Your task to perform on an android device: Open ESPN.com Image 0: 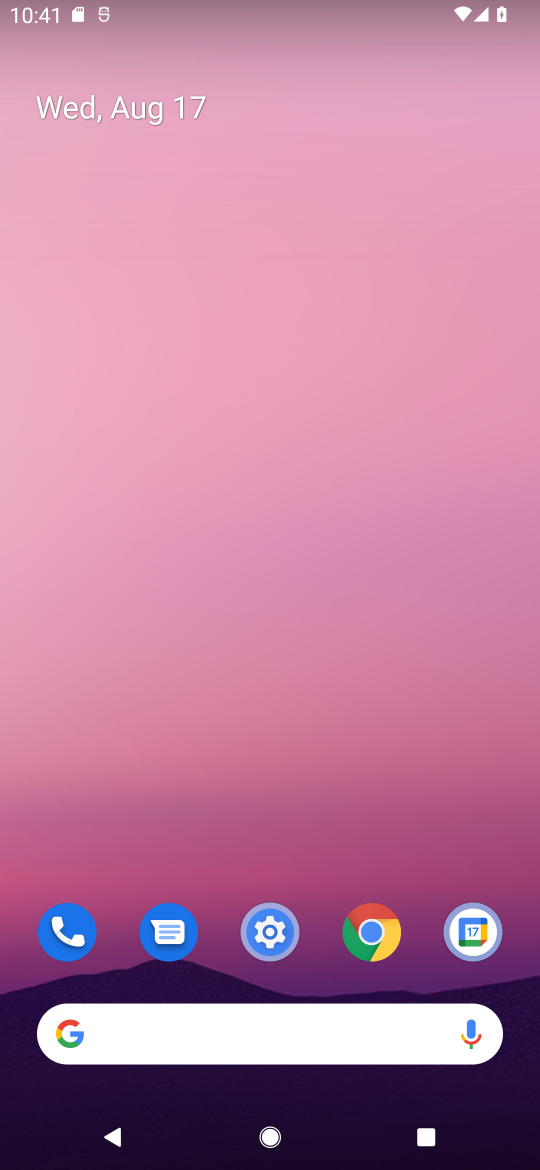
Step 0: click (366, 933)
Your task to perform on an android device: Open ESPN.com Image 1: 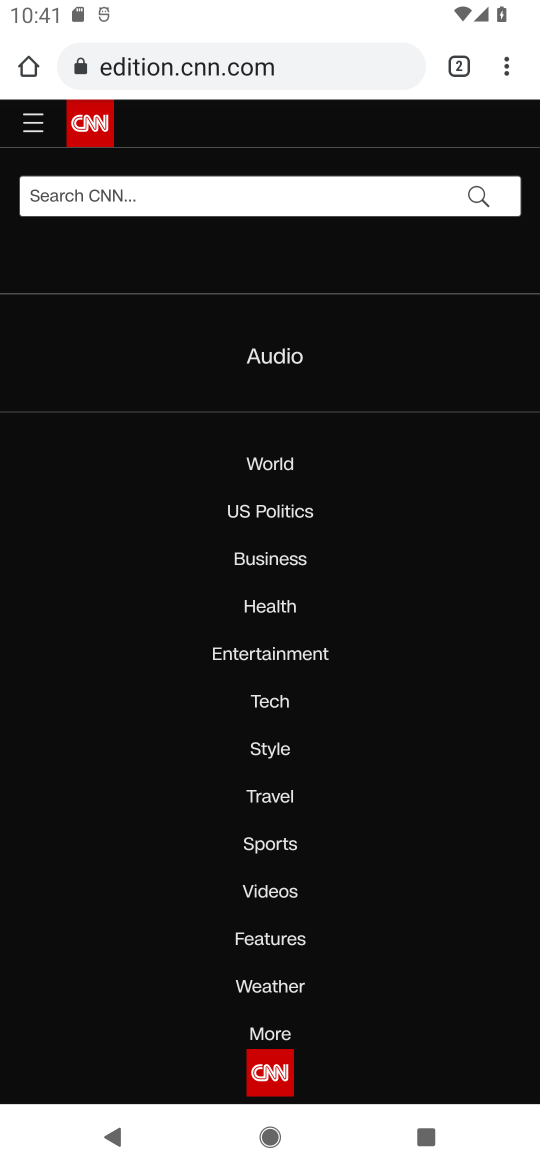
Step 1: click (509, 76)
Your task to perform on an android device: Open ESPN.com Image 2: 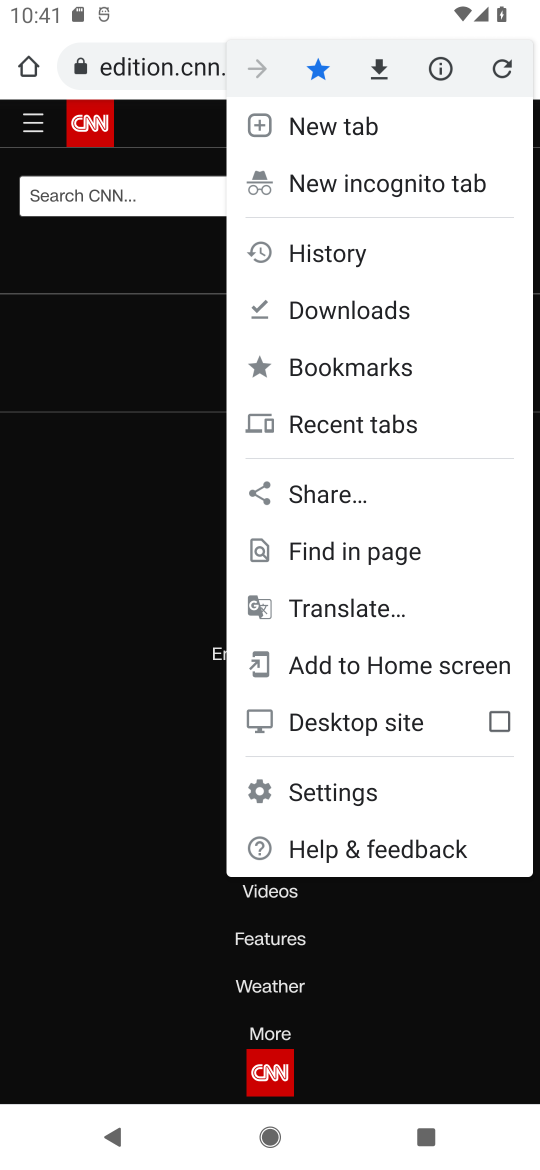
Step 2: click (302, 124)
Your task to perform on an android device: Open ESPN.com Image 3: 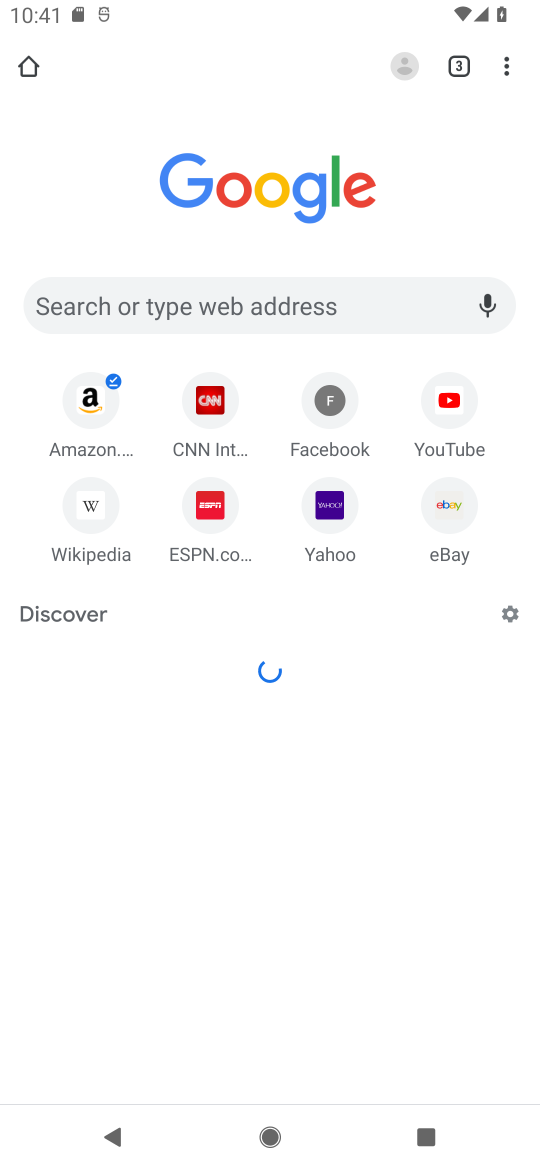
Step 3: click (211, 501)
Your task to perform on an android device: Open ESPN.com Image 4: 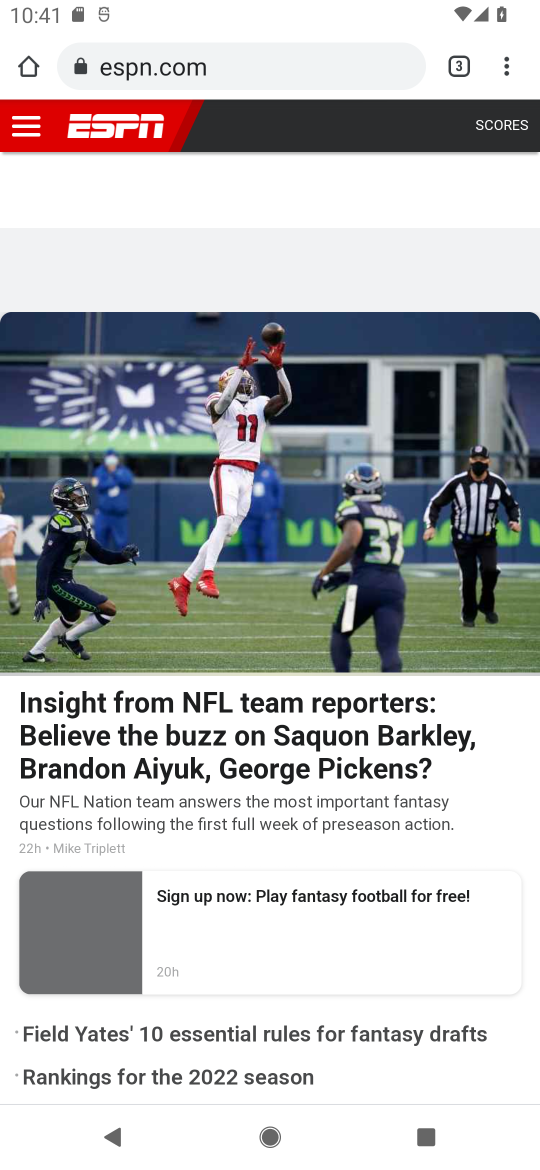
Step 4: task complete